Your task to perform on an android device: Is it going to rain today? Image 0: 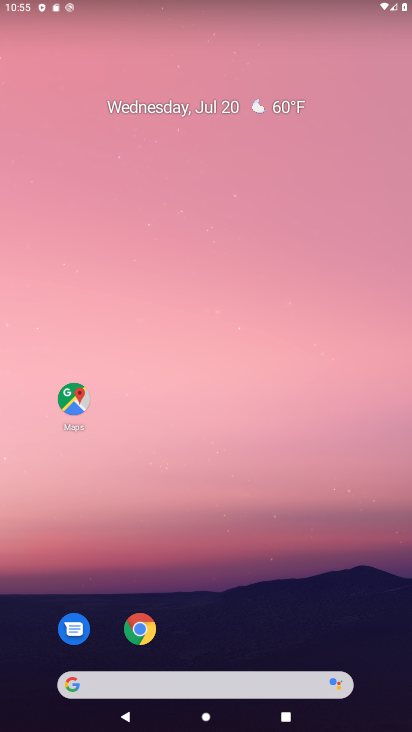
Step 0: drag from (211, 643) to (207, 194)
Your task to perform on an android device: Is it going to rain today? Image 1: 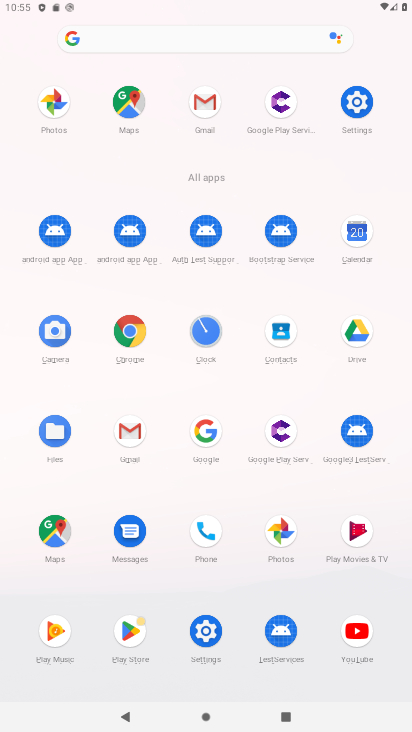
Step 1: click (201, 427)
Your task to perform on an android device: Is it going to rain today? Image 2: 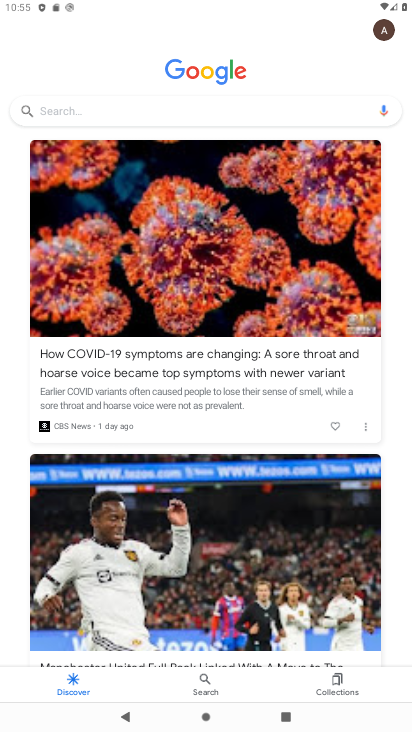
Step 2: click (182, 104)
Your task to perform on an android device: Is it going to rain today? Image 3: 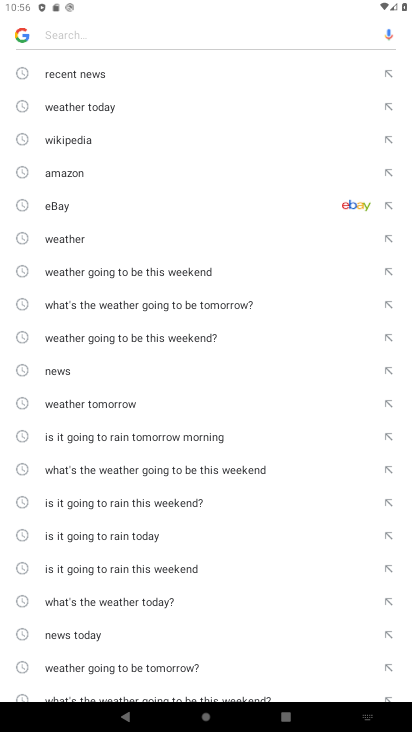
Step 3: click (92, 235)
Your task to perform on an android device: Is it going to rain today? Image 4: 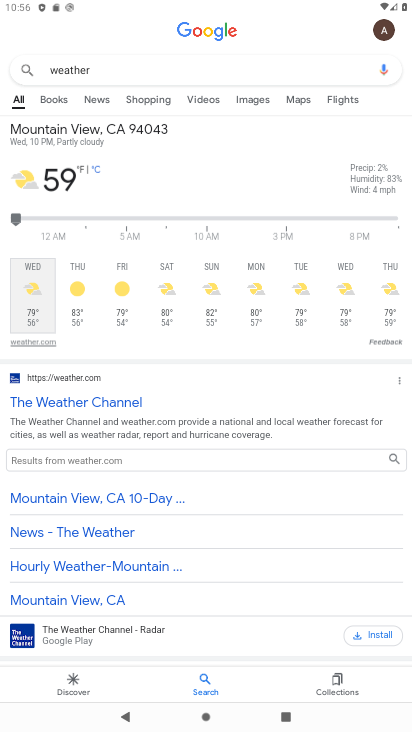
Step 4: task complete